Your task to perform on an android device: Go to settings Image 0: 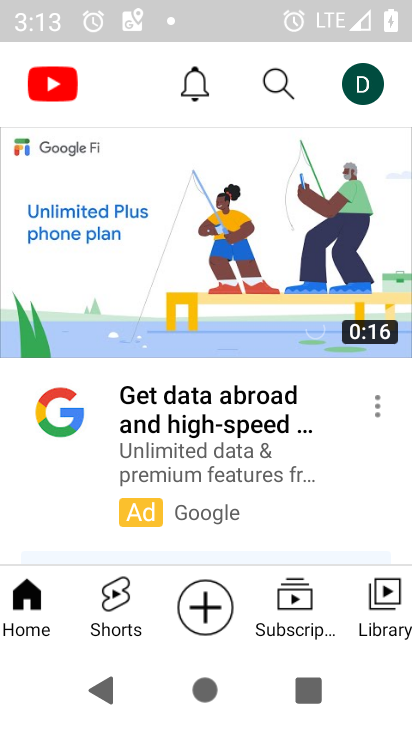
Step 0: press home button
Your task to perform on an android device: Go to settings Image 1: 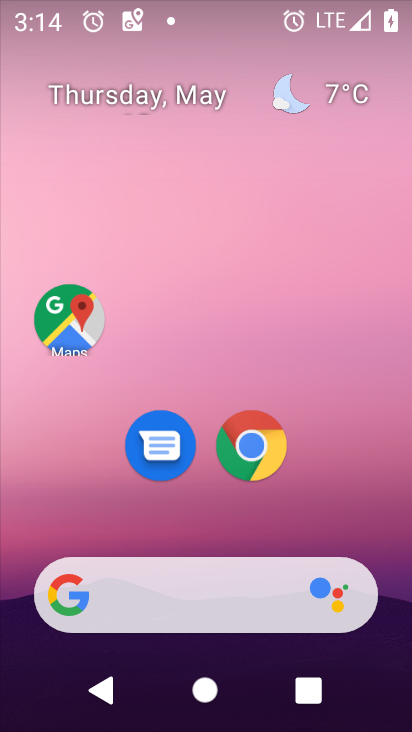
Step 1: drag from (378, 566) to (385, 7)
Your task to perform on an android device: Go to settings Image 2: 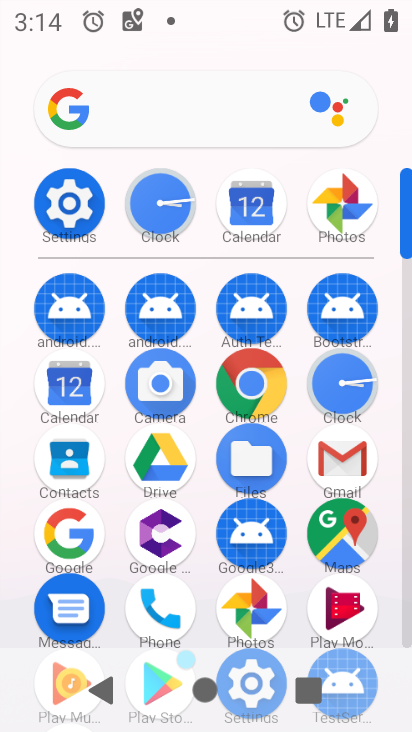
Step 2: click (65, 216)
Your task to perform on an android device: Go to settings Image 3: 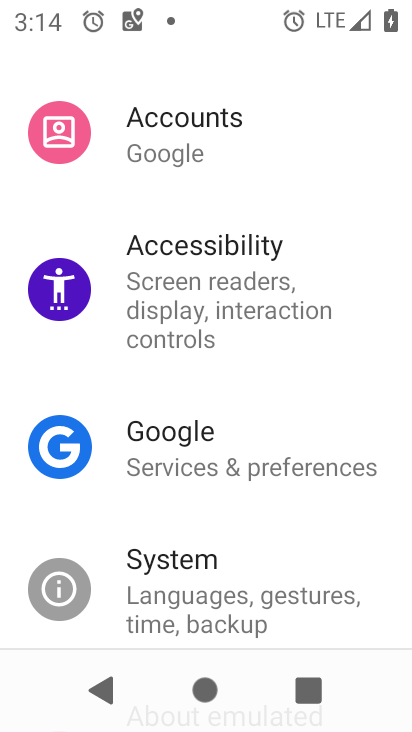
Step 3: task complete